Your task to perform on an android device: find which apps use the phone's location Image 0: 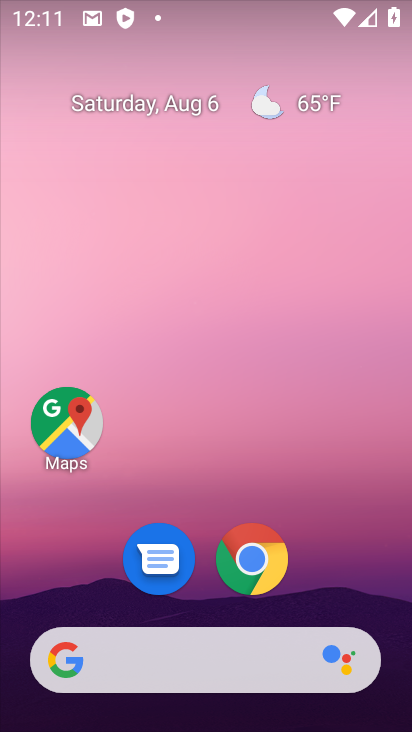
Step 0: drag from (156, 716) to (311, 36)
Your task to perform on an android device: find which apps use the phone's location Image 1: 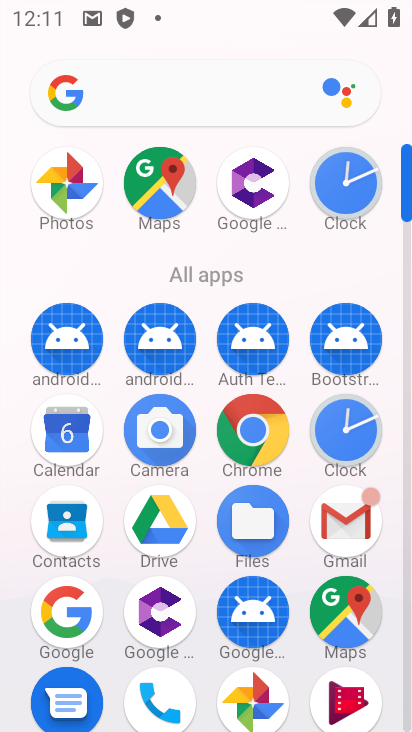
Step 1: drag from (164, 652) to (208, 118)
Your task to perform on an android device: find which apps use the phone's location Image 2: 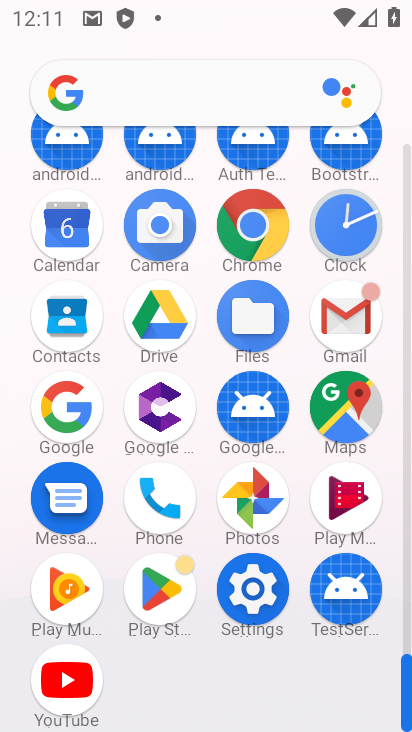
Step 2: click (271, 603)
Your task to perform on an android device: find which apps use the phone's location Image 3: 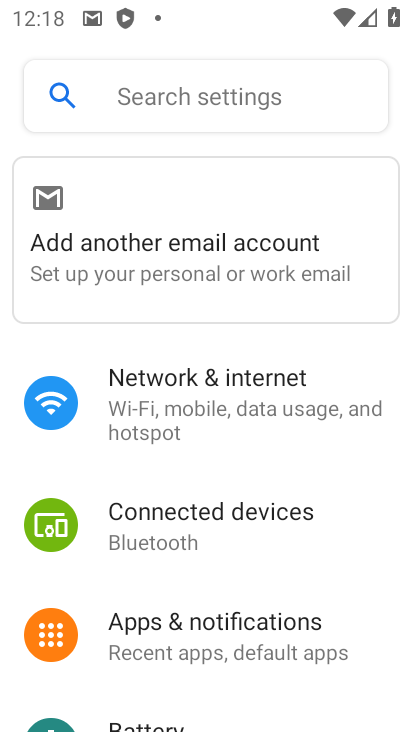
Step 3: drag from (169, 680) to (144, 102)
Your task to perform on an android device: find which apps use the phone's location Image 4: 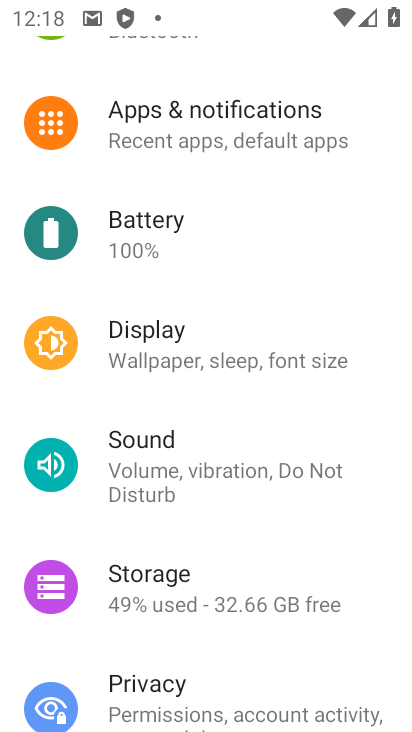
Step 4: drag from (263, 634) to (264, 16)
Your task to perform on an android device: find which apps use the phone's location Image 5: 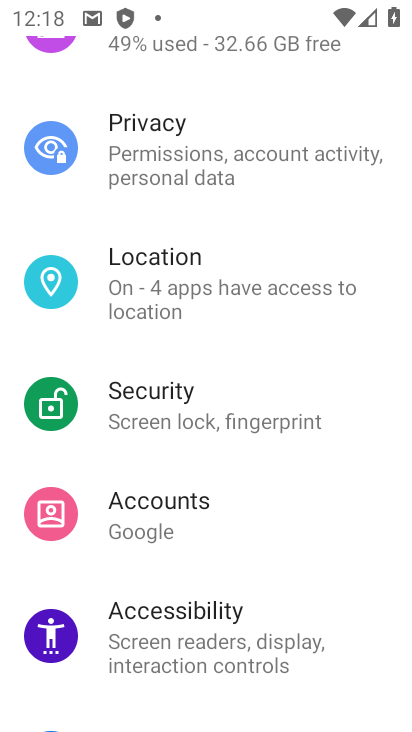
Step 5: click (258, 272)
Your task to perform on an android device: find which apps use the phone's location Image 6: 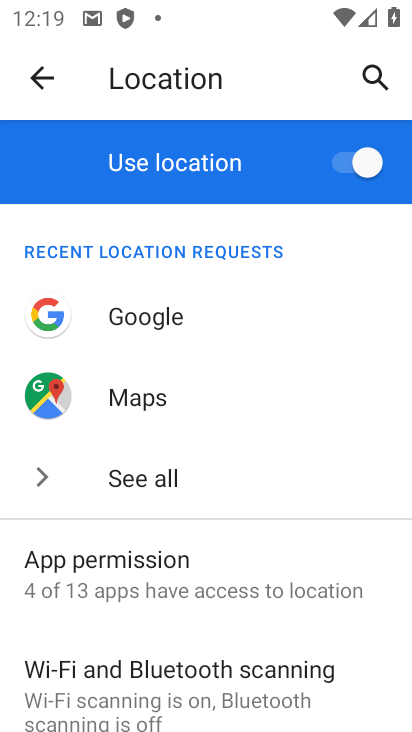
Step 6: click (121, 466)
Your task to perform on an android device: find which apps use the phone's location Image 7: 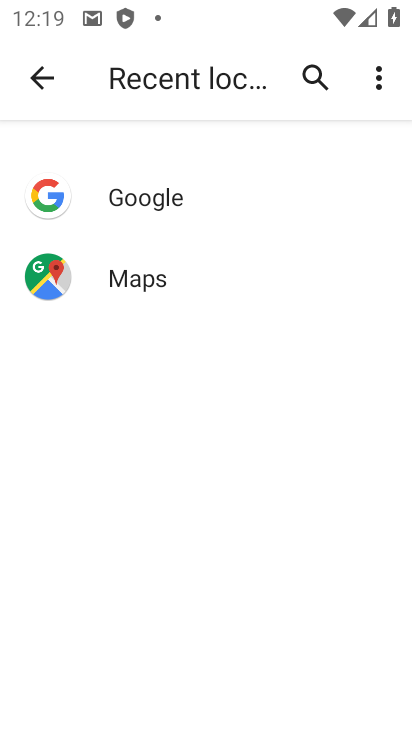
Step 7: task complete